Your task to perform on an android device: delete location history Image 0: 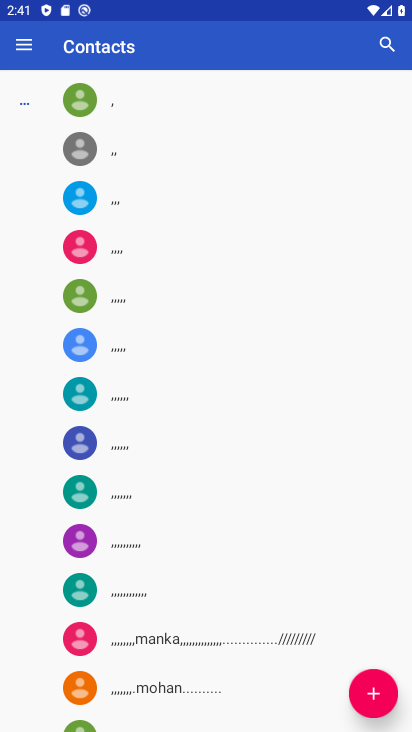
Step 0: press home button
Your task to perform on an android device: delete location history Image 1: 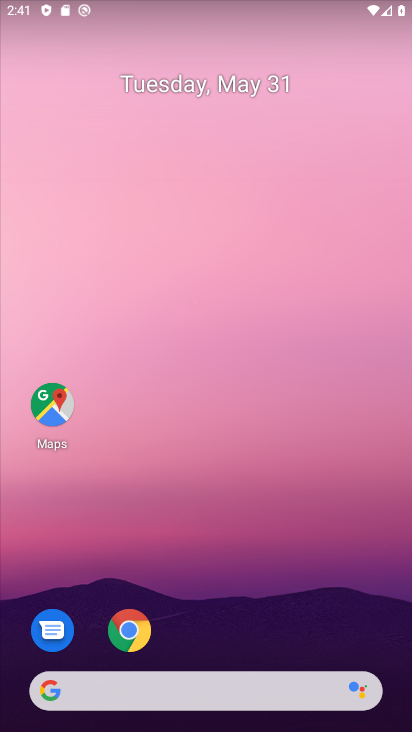
Step 1: drag from (186, 653) to (209, 253)
Your task to perform on an android device: delete location history Image 2: 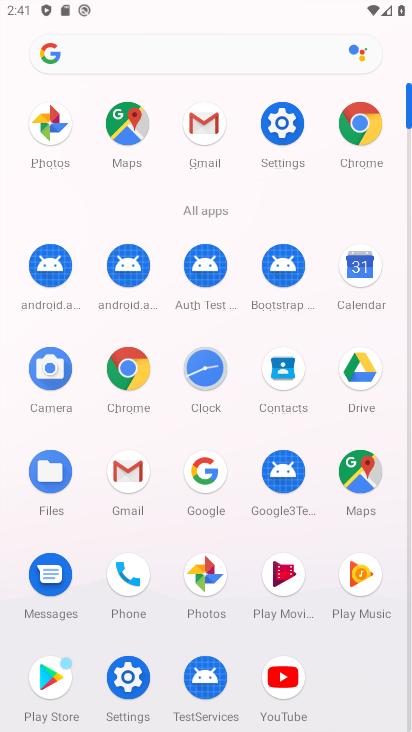
Step 2: click (285, 132)
Your task to perform on an android device: delete location history Image 3: 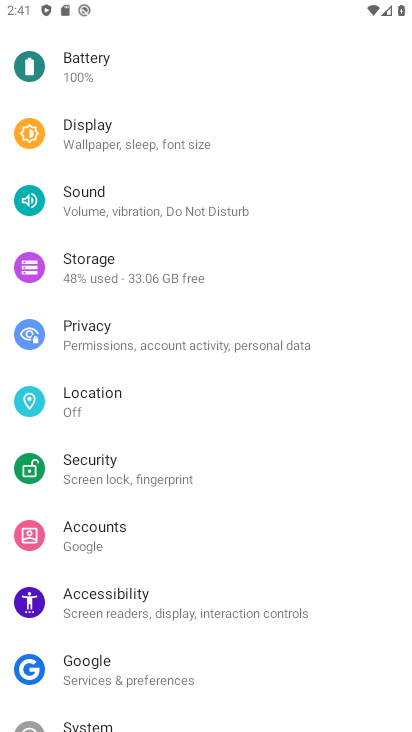
Step 3: press home button
Your task to perform on an android device: delete location history Image 4: 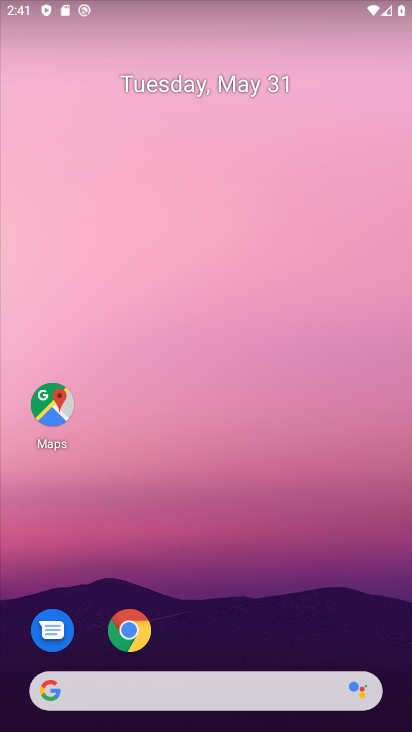
Step 4: click (64, 400)
Your task to perform on an android device: delete location history Image 5: 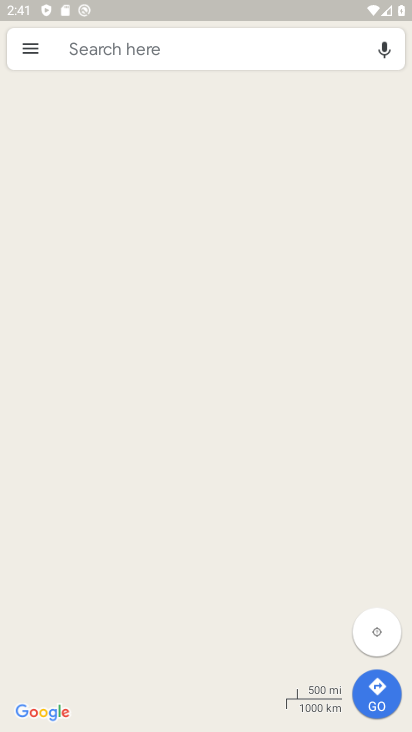
Step 5: click (29, 49)
Your task to perform on an android device: delete location history Image 6: 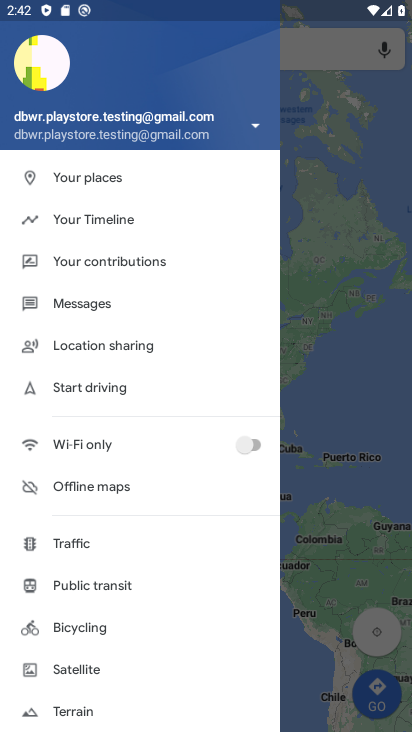
Step 6: drag from (112, 694) to (187, 139)
Your task to perform on an android device: delete location history Image 7: 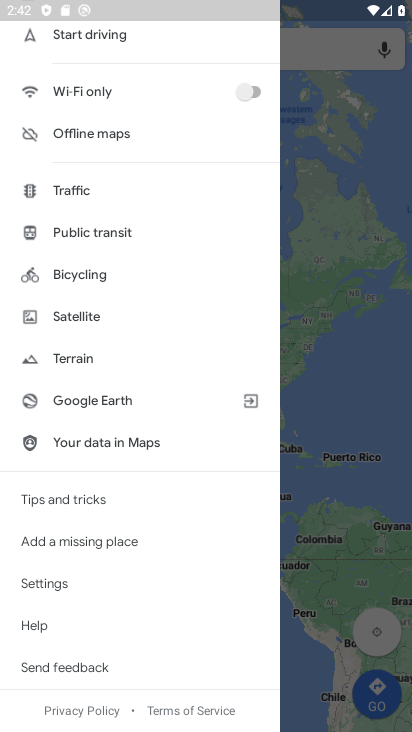
Step 7: click (43, 590)
Your task to perform on an android device: delete location history Image 8: 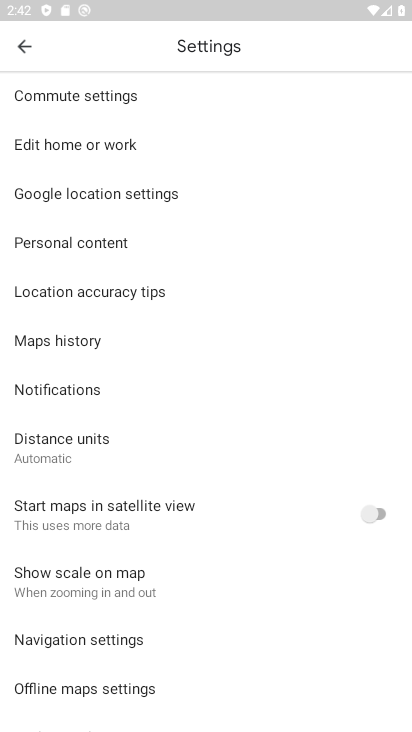
Step 8: drag from (179, 629) to (283, 190)
Your task to perform on an android device: delete location history Image 9: 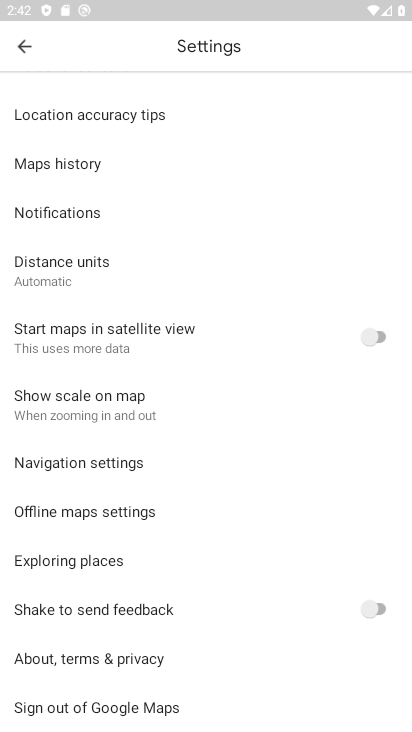
Step 9: drag from (88, 644) to (204, 174)
Your task to perform on an android device: delete location history Image 10: 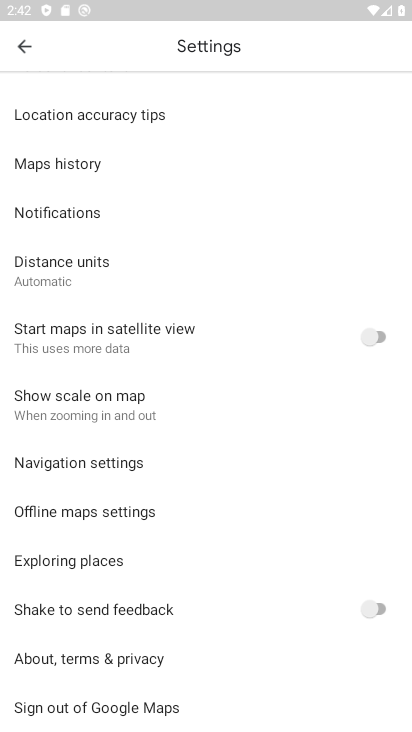
Step 10: drag from (169, 186) to (170, 659)
Your task to perform on an android device: delete location history Image 11: 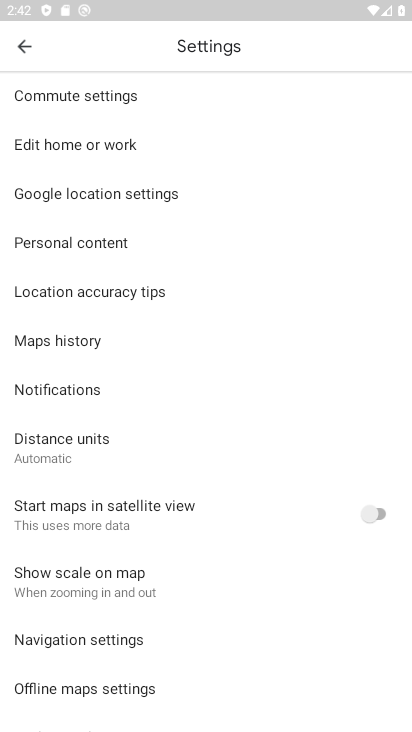
Step 11: drag from (243, 194) to (263, 666)
Your task to perform on an android device: delete location history Image 12: 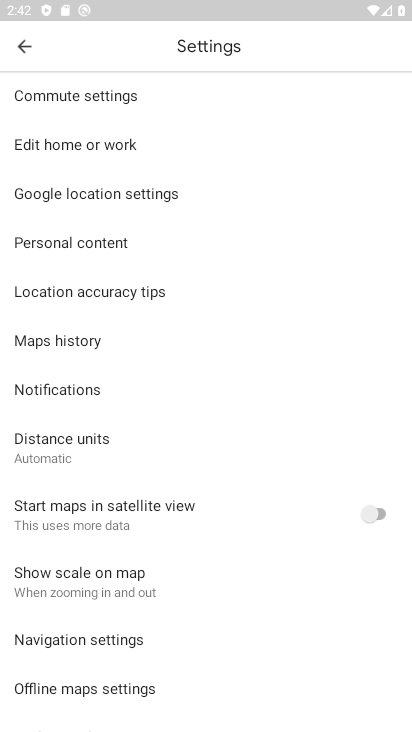
Step 12: click (19, 65)
Your task to perform on an android device: delete location history Image 13: 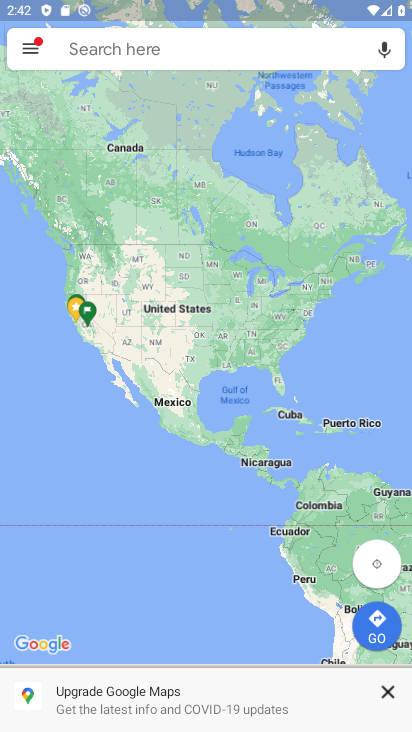
Step 13: click (29, 47)
Your task to perform on an android device: delete location history Image 14: 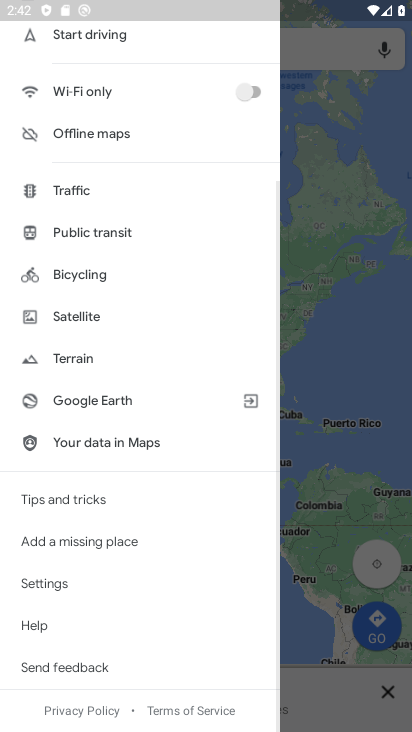
Step 14: drag from (86, 81) to (146, 597)
Your task to perform on an android device: delete location history Image 15: 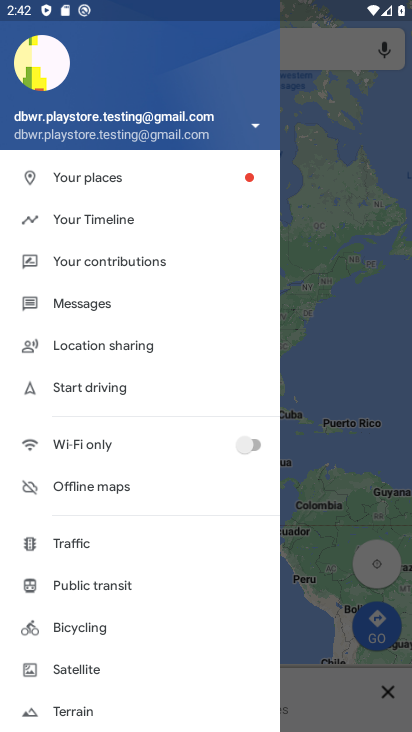
Step 15: click (121, 212)
Your task to perform on an android device: delete location history Image 16: 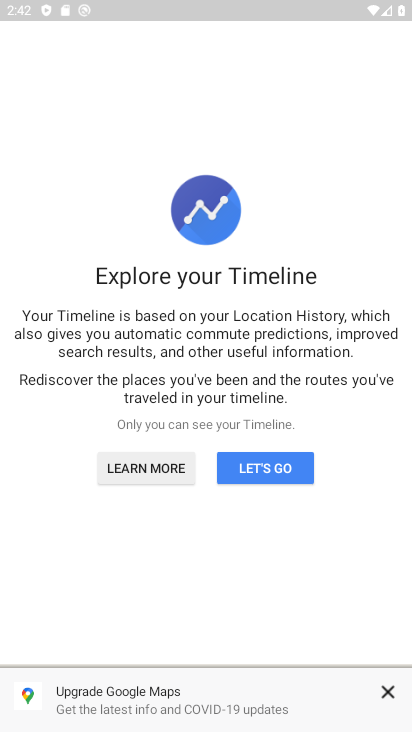
Step 16: click (242, 465)
Your task to perform on an android device: delete location history Image 17: 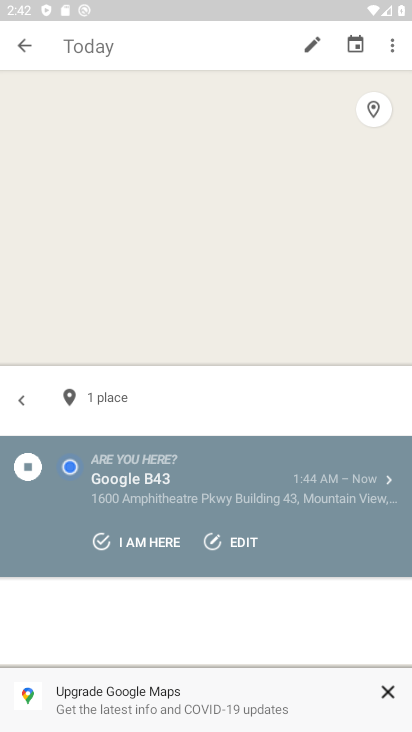
Step 17: click (397, 41)
Your task to perform on an android device: delete location history Image 18: 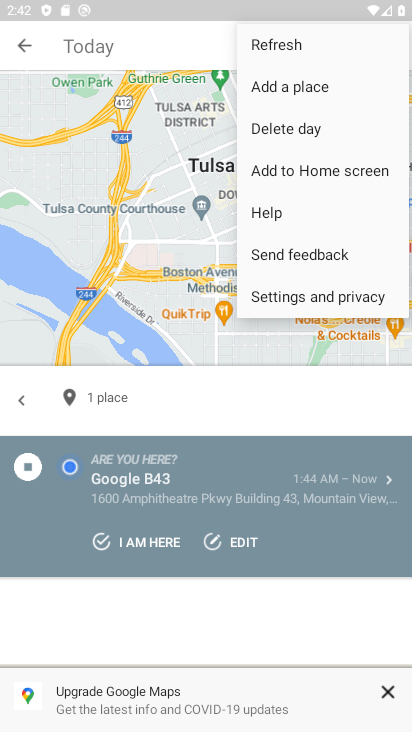
Step 18: click (286, 306)
Your task to perform on an android device: delete location history Image 19: 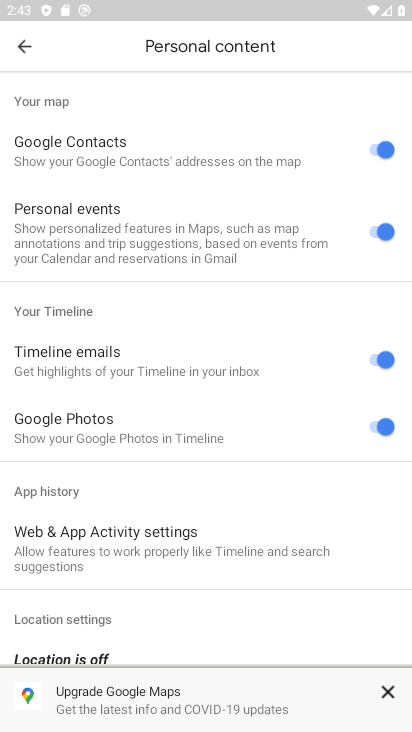
Step 19: drag from (261, 620) to (279, 133)
Your task to perform on an android device: delete location history Image 20: 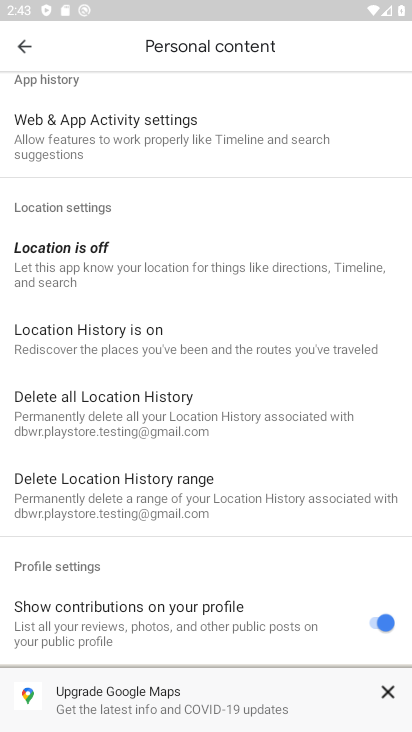
Step 20: click (149, 404)
Your task to perform on an android device: delete location history Image 21: 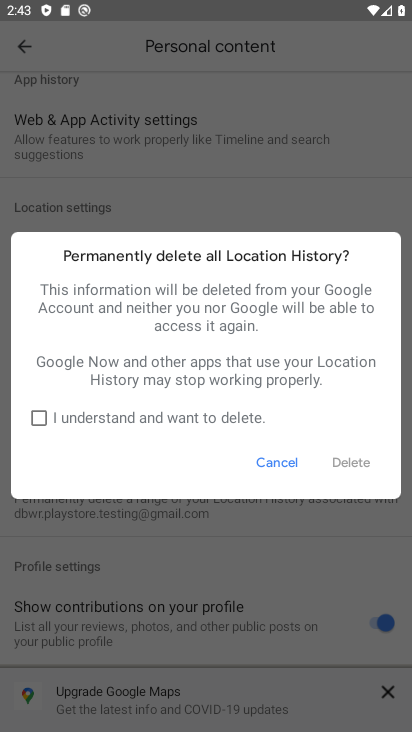
Step 21: click (149, 404)
Your task to perform on an android device: delete location history Image 22: 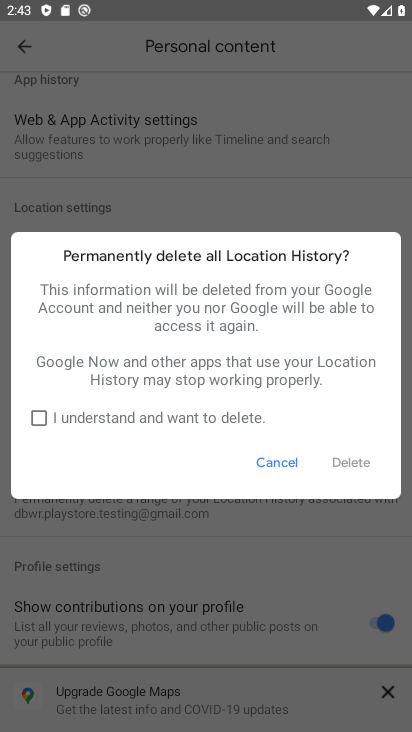
Step 22: click (36, 418)
Your task to perform on an android device: delete location history Image 23: 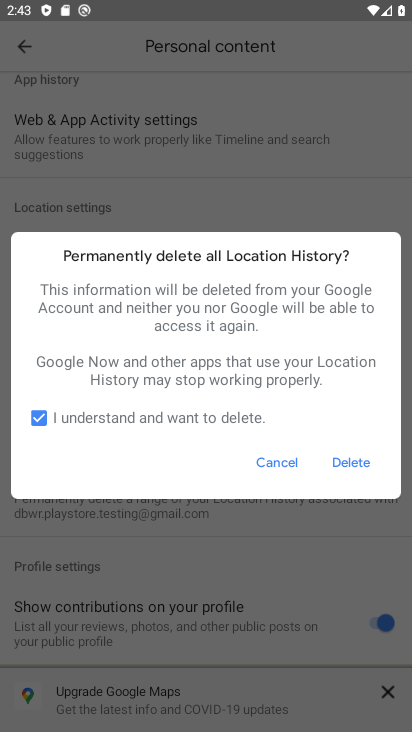
Step 23: click (352, 465)
Your task to perform on an android device: delete location history Image 24: 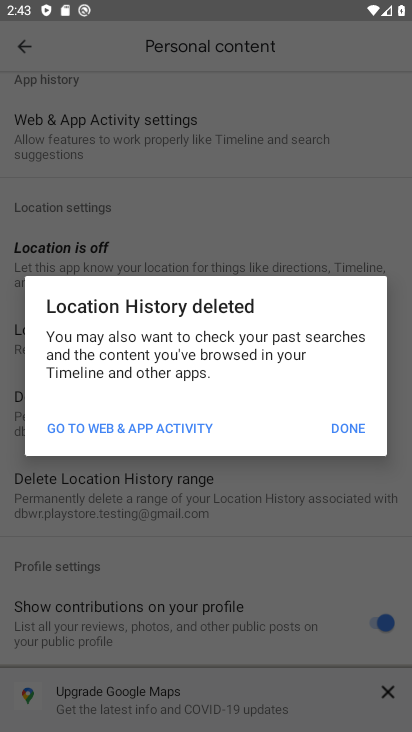
Step 24: click (350, 440)
Your task to perform on an android device: delete location history Image 25: 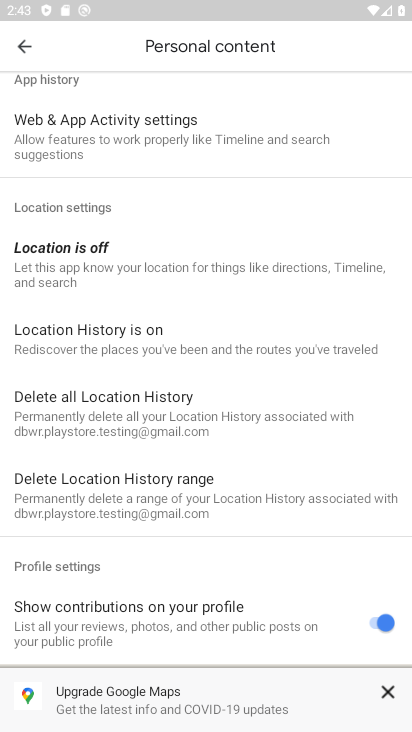
Step 25: task complete